Your task to perform on an android device: turn pop-ups off in chrome Image 0: 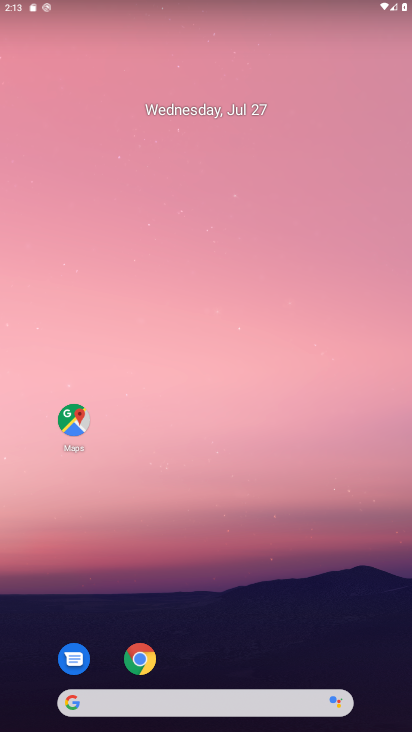
Step 0: drag from (259, 659) to (321, 112)
Your task to perform on an android device: turn pop-ups off in chrome Image 1: 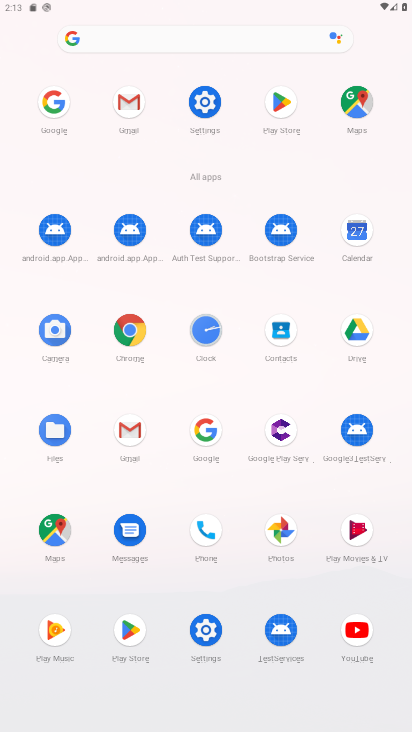
Step 1: click (136, 343)
Your task to perform on an android device: turn pop-ups off in chrome Image 2: 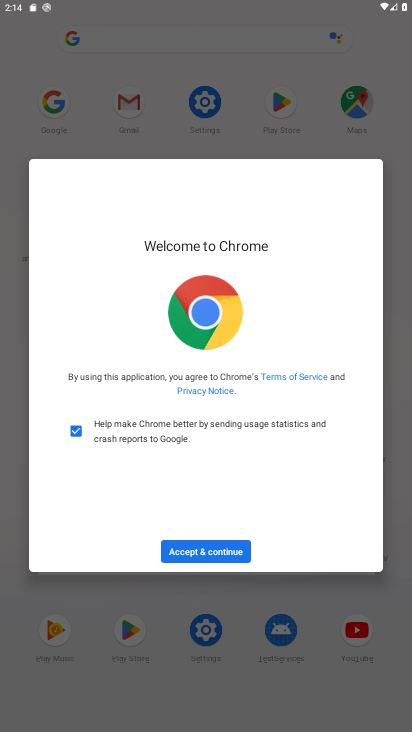
Step 2: click (177, 549)
Your task to perform on an android device: turn pop-ups off in chrome Image 3: 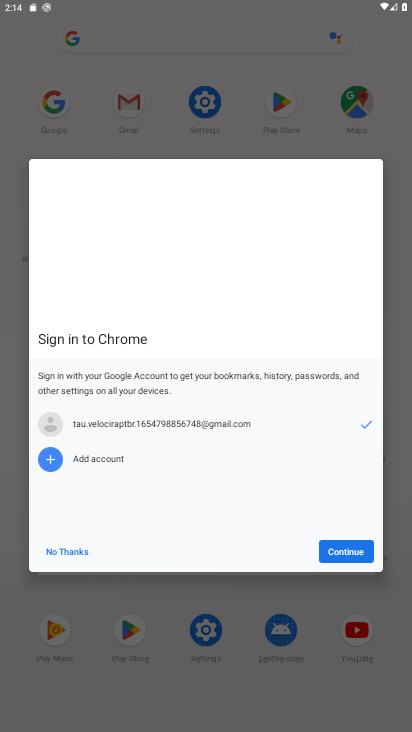
Step 3: click (62, 551)
Your task to perform on an android device: turn pop-ups off in chrome Image 4: 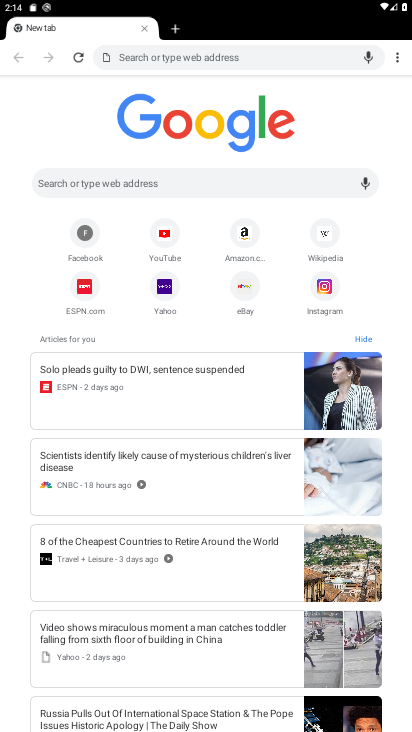
Step 4: drag from (404, 53) to (267, 266)
Your task to perform on an android device: turn pop-ups off in chrome Image 5: 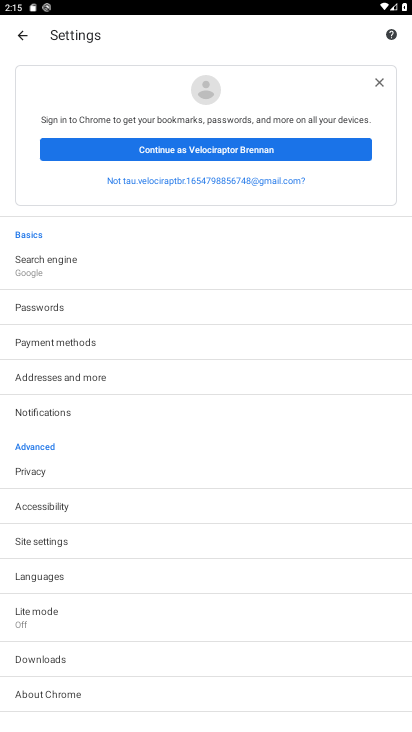
Step 5: click (62, 535)
Your task to perform on an android device: turn pop-ups off in chrome Image 6: 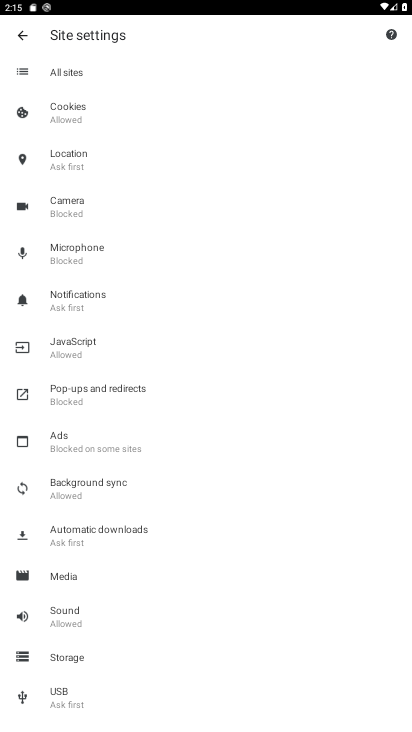
Step 6: click (95, 396)
Your task to perform on an android device: turn pop-ups off in chrome Image 7: 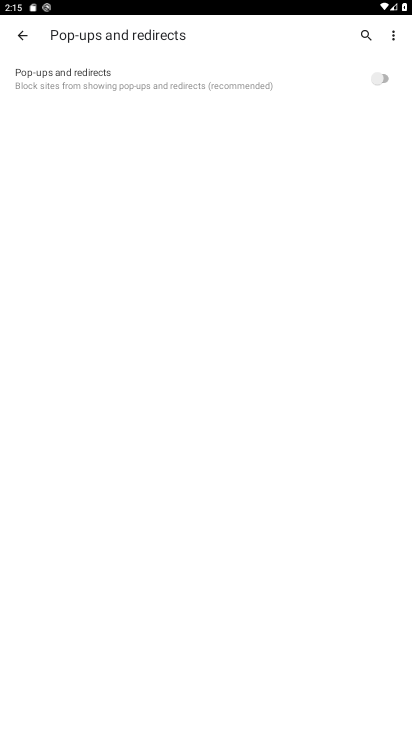
Step 7: task complete